Your task to perform on an android device: turn on showing notifications on the lock screen Image 0: 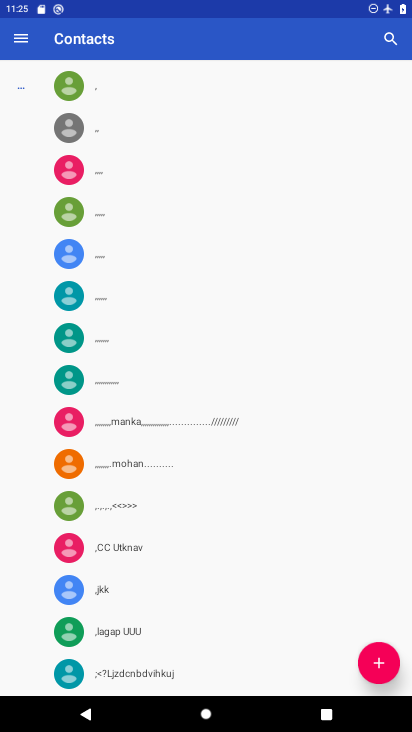
Step 0: press home button
Your task to perform on an android device: turn on showing notifications on the lock screen Image 1: 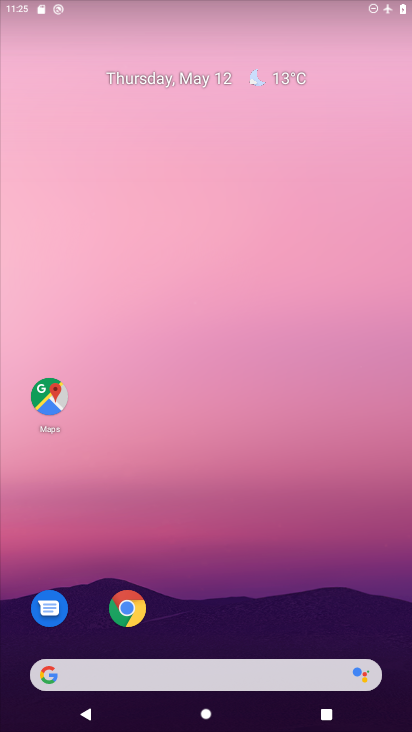
Step 1: drag from (262, 610) to (262, 90)
Your task to perform on an android device: turn on showing notifications on the lock screen Image 2: 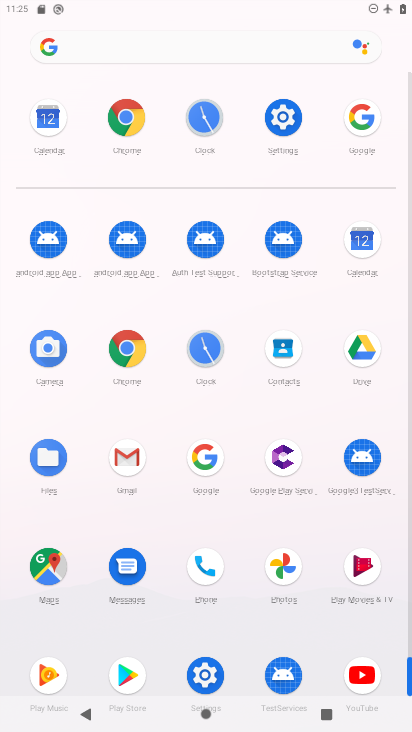
Step 2: click (280, 117)
Your task to perform on an android device: turn on showing notifications on the lock screen Image 3: 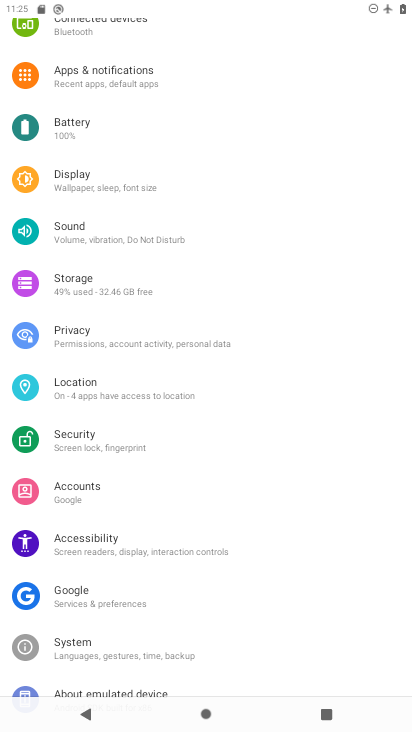
Step 3: drag from (132, 146) to (175, 425)
Your task to perform on an android device: turn on showing notifications on the lock screen Image 4: 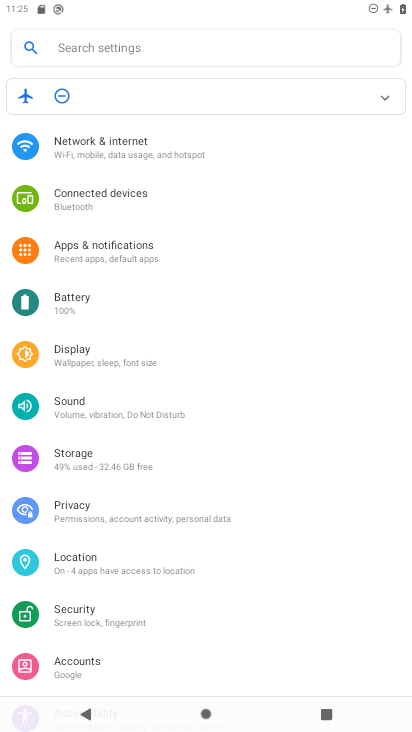
Step 4: click (96, 249)
Your task to perform on an android device: turn on showing notifications on the lock screen Image 5: 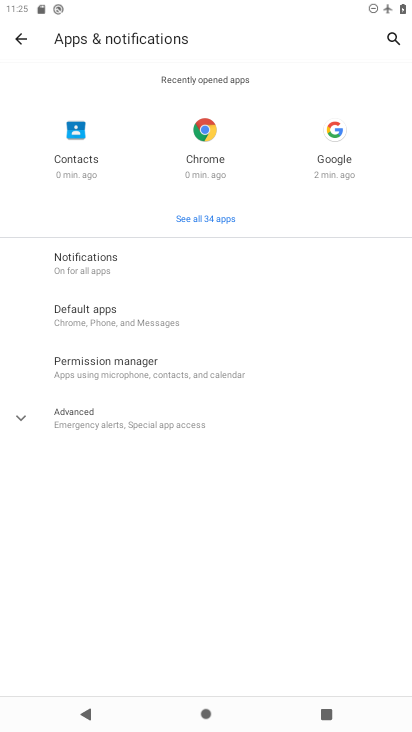
Step 5: click (129, 253)
Your task to perform on an android device: turn on showing notifications on the lock screen Image 6: 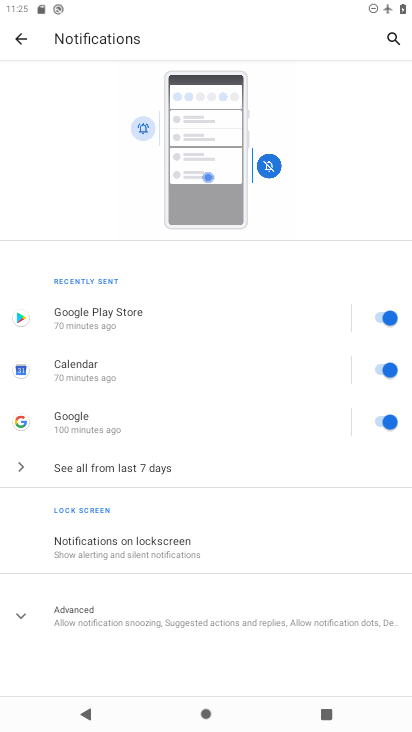
Step 6: drag from (108, 609) to (225, 394)
Your task to perform on an android device: turn on showing notifications on the lock screen Image 7: 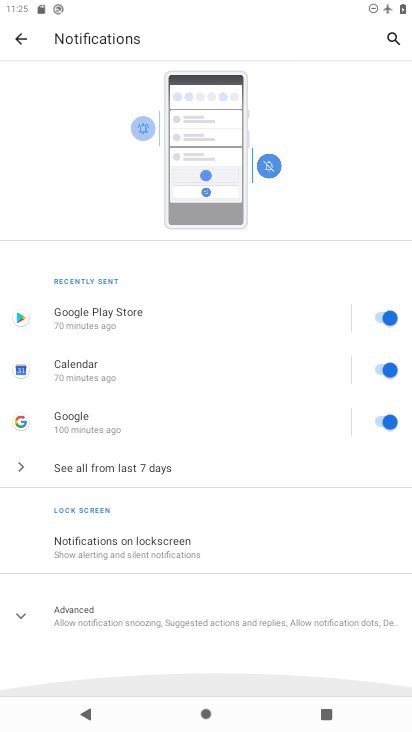
Step 7: click (170, 546)
Your task to perform on an android device: turn on showing notifications on the lock screen Image 8: 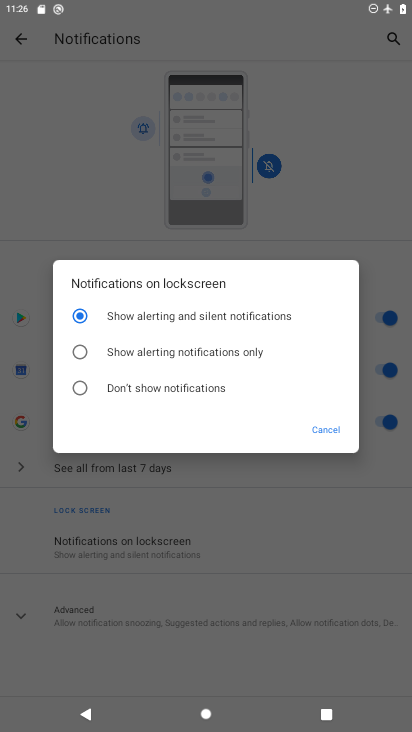
Step 8: task complete